Your task to perform on an android device: search for starred emails in the gmail app Image 0: 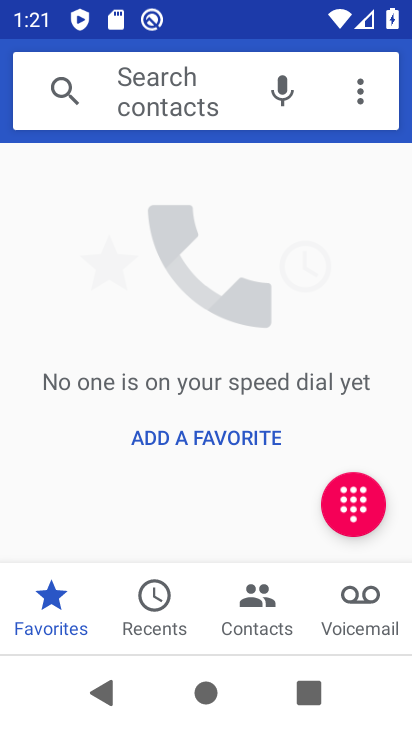
Step 0: press back button
Your task to perform on an android device: search for starred emails in the gmail app Image 1: 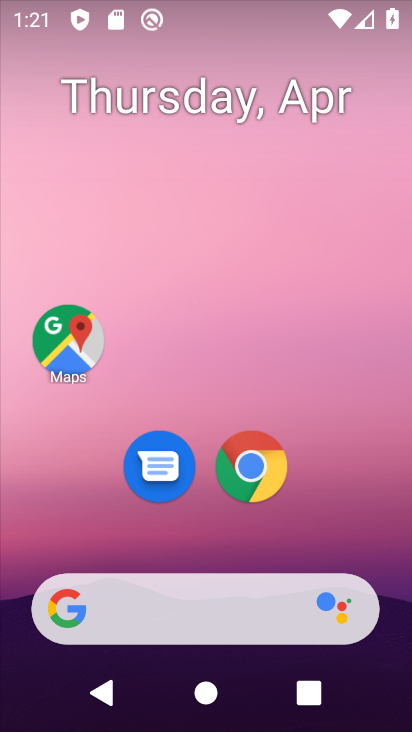
Step 1: drag from (367, 557) to (300, 5)
Your task to perform on an android device: search for starred emails in the gmail app Image 2: 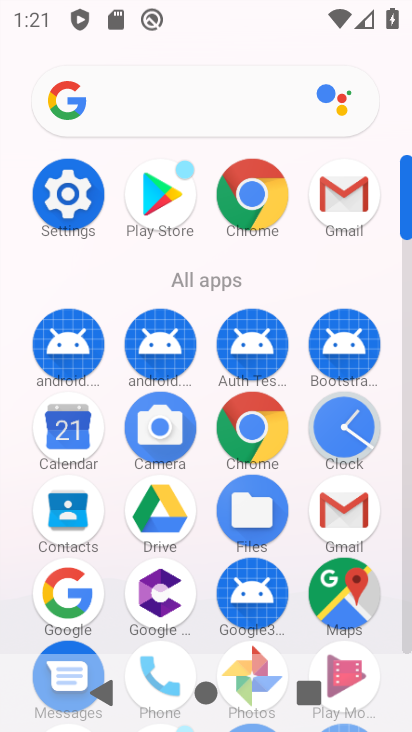
Step 2: drag from (11, 572) to (11, 324)
Your task to perform on an android device: search for starred emails in the gmail app Image 3: 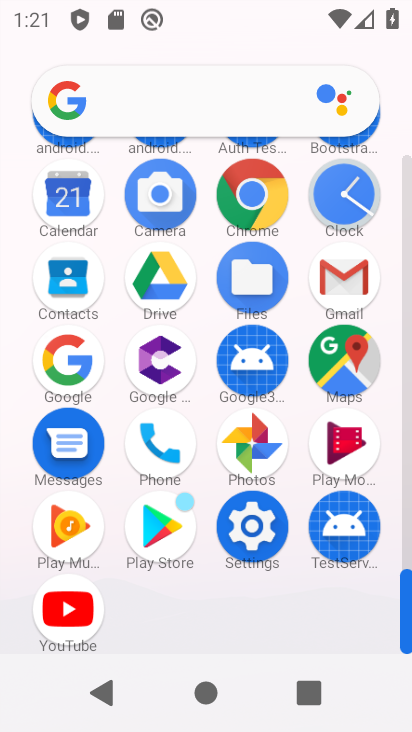
Step 3: click (253, 189)
Your task to perform on an android device: search for starred emails in the gmail app Image 4: 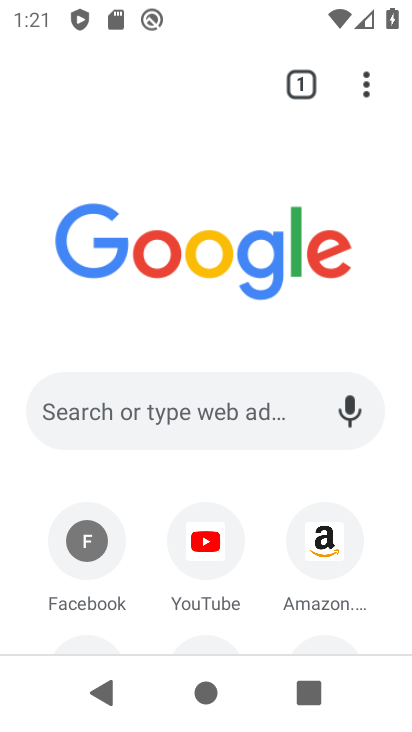
Step 4: press back button
Your task to perform on an android device: search for starred emails in the gmail app Image 5: 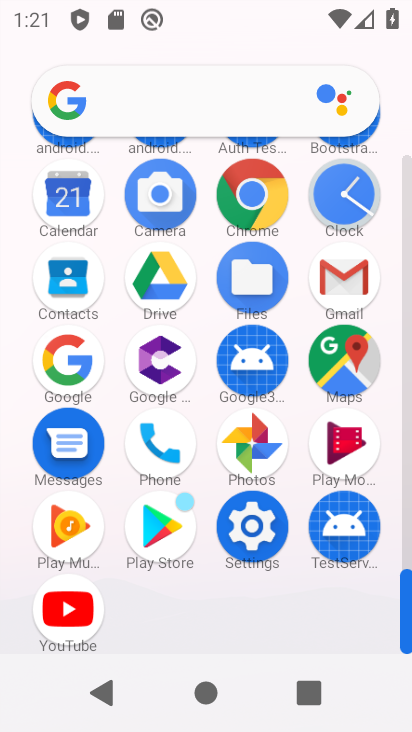
Step 5: click (349, 266)
Your task to perform on an android device: search for starred emails in the gmail app Image 6: 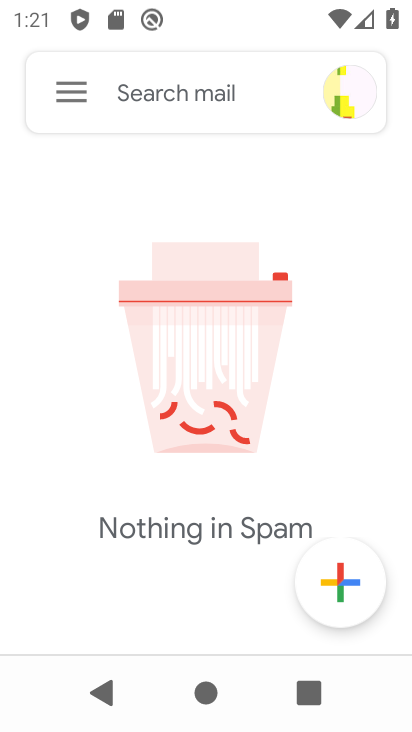
Step 6: click (43, 82)
Your task to perform on an android device: search for starred emails in the gmail app Image 7: 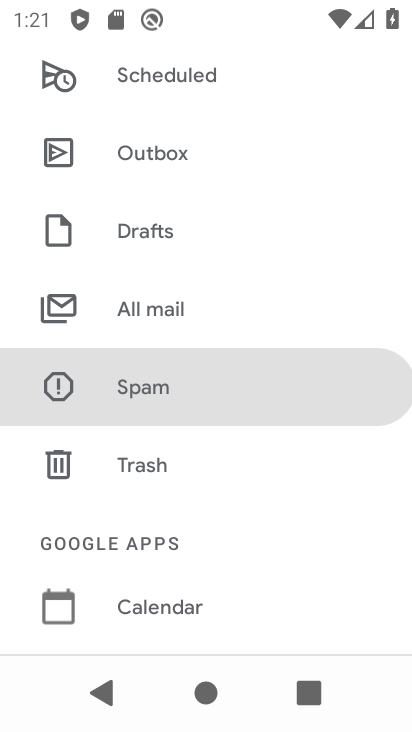
Step 7: drag from (250, 130) to (255, 472)
Your task to perform on an android device: search for starred emails in the gmail app Image 8: 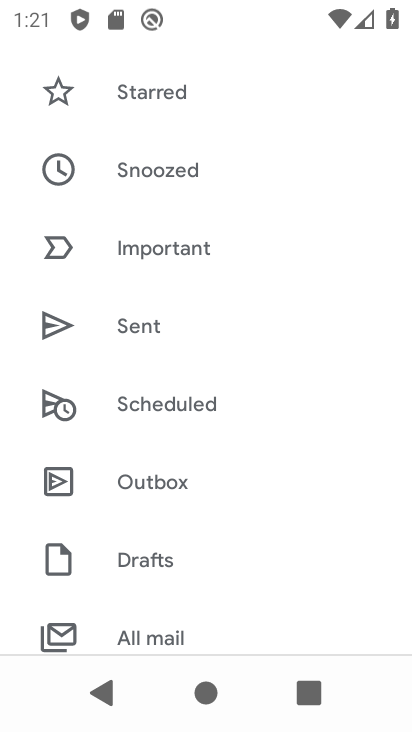
Step 8: drag from (247, 216) to (239, 500)
Your task to perform on an android device: search for starred emails in the gmail app Image 9: 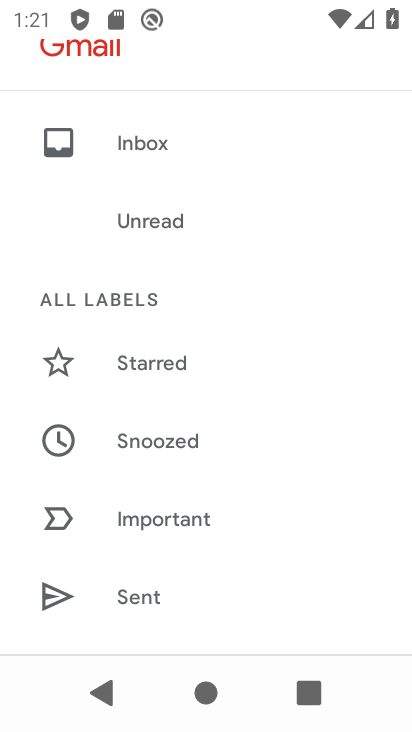
Step 9: drag from (302, 192) to (285, 445)
Your task to perform on an android device: search for starred emails in the gmail app Image 10: 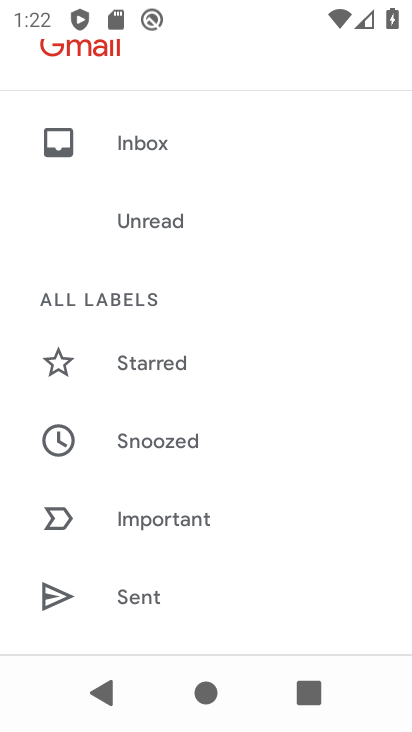
Step 10: click (190, 358)
Your task to perform on an android device: search for starred emails in the gmail app Image 11: 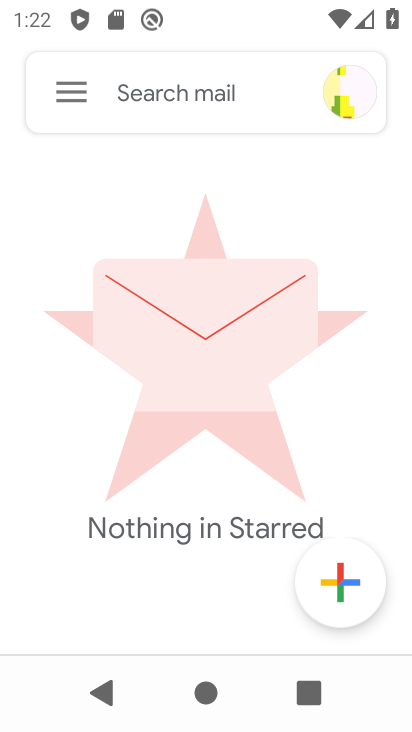
Step 11: task complete